Your task to perform on an android device: turn on priority inbox in the gmail app Image 0: 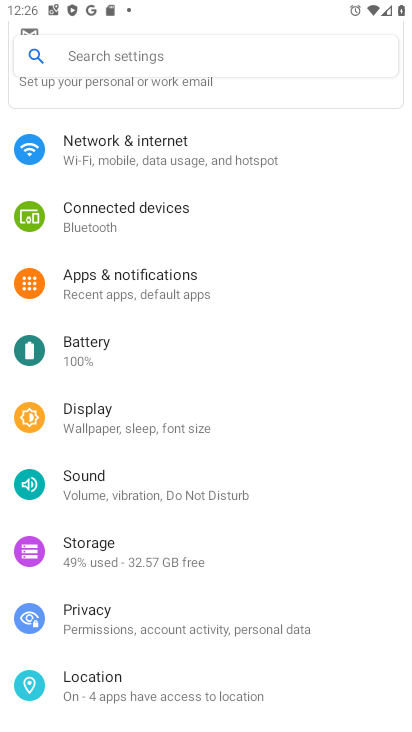
Step 0: press home button
Your task to perform on an android device: turn on priority inbox in the gmail app Image 1: 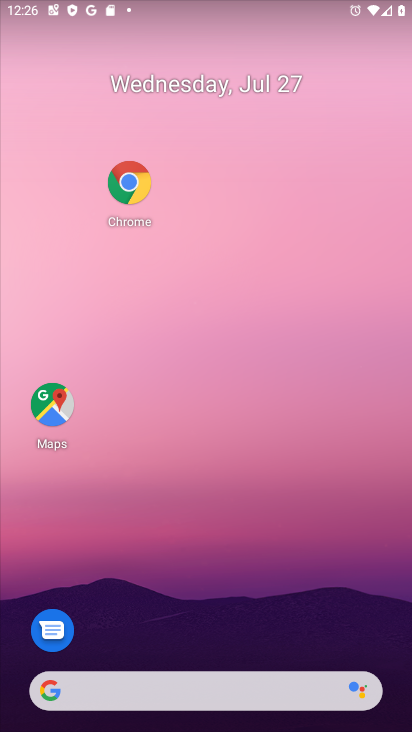
Step 1: drag from (101, 724) to (157, 197)
Your task to perform on an android device: turn on priority inbox in the gmail app Image 2: 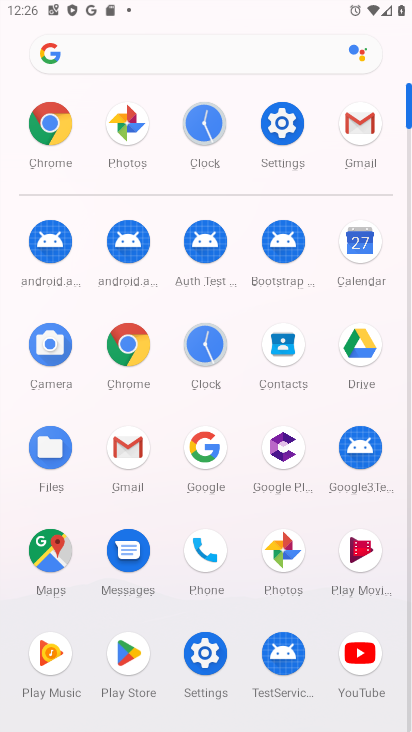
Step 2: click (355, 126)
Your task to perform on an android device: turn on priority inbox in the gmail app Image 3: 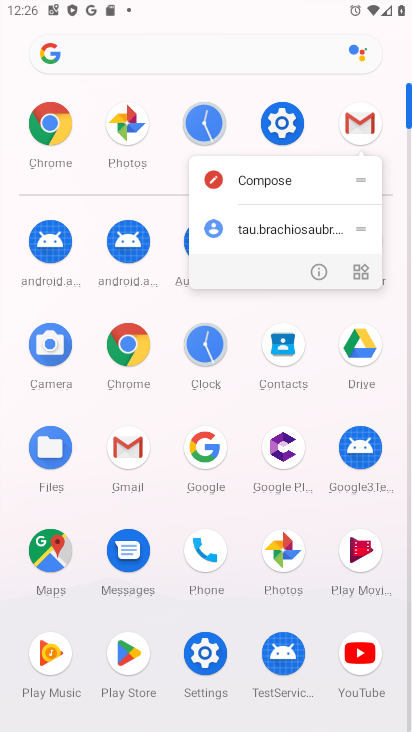
Step 3: click (355, 126)
Your task to perform on an android device: turn on priority inbox in the gmail app Image 4: 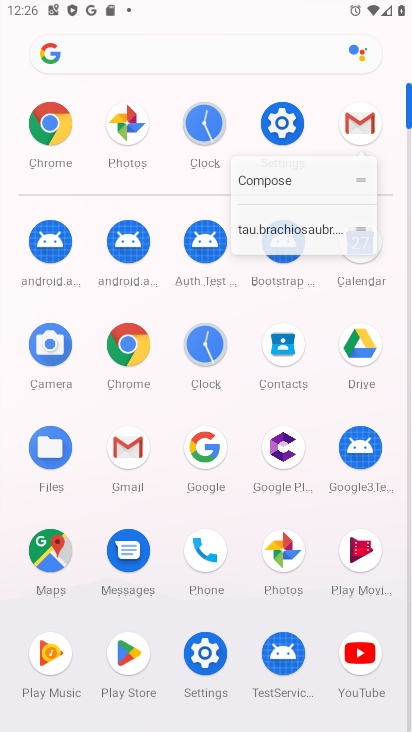
Step 4: click (355, 126)
Your task to perform on an android device: turn on priority inbox in the gmail app Image 5: 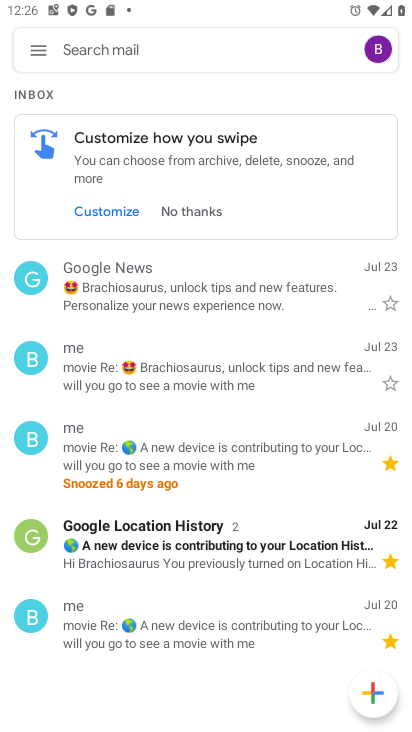
Step 5: click (42, 44)
Your task to perform on an android device: turn on priority inbox in the gmail app Image 6: 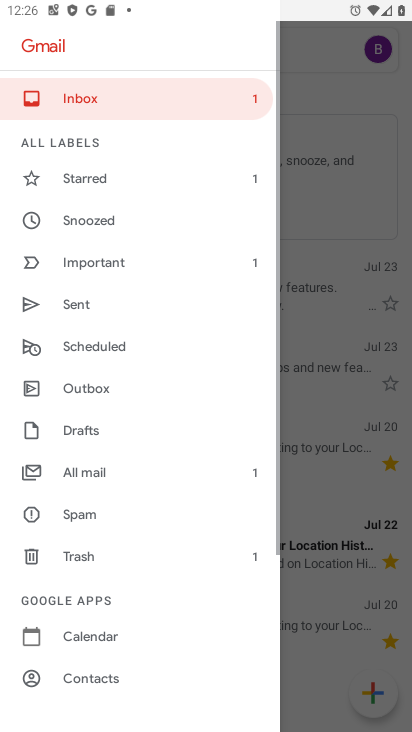
Step 6: drag from (151, 629) to (167, 60)
Your task to perform on an android device: turn on priority inbox in the gmail app Image 7: 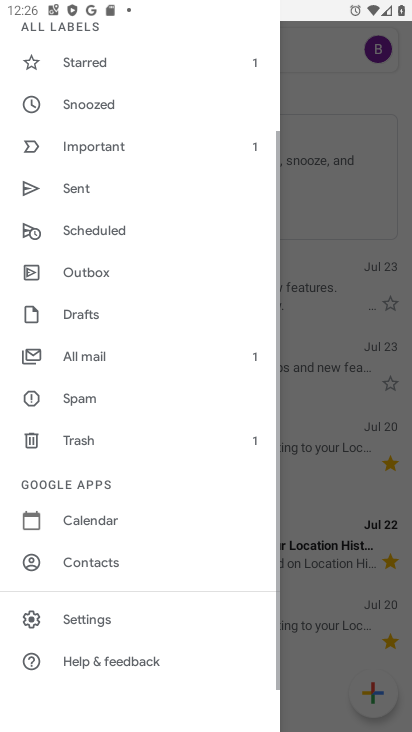
Step 7: click (111, 617)
Your task to perform on an android device: turn on priority inbox in the gmail app Image 8: 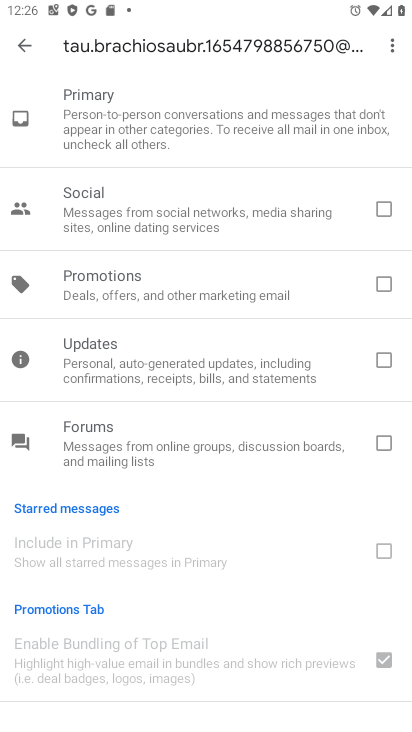
Step 8: click (30, 55)
Your task to perform on an android device: turn on priority inbox in the gmail app Image 9: 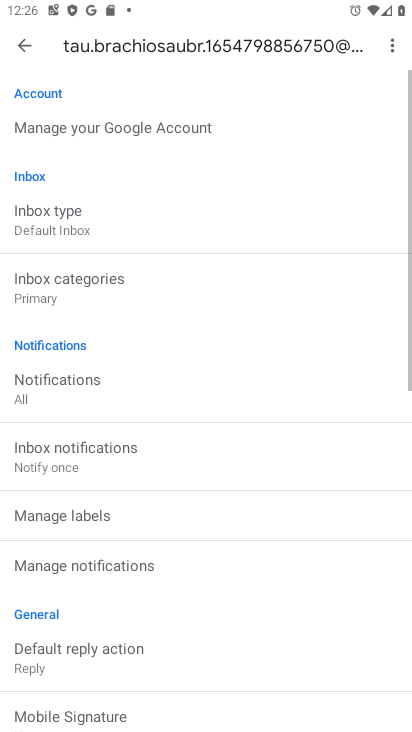
Step 9: click (66, 234)
Your task to perform on an android device: turn on priority inbox in the gmail app Image 10: 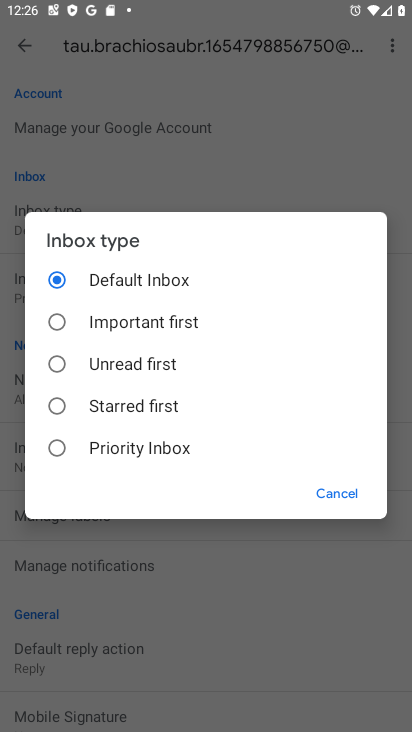
Step 10: click (121, 440)
Your task to perform on an android device: turn on priority inbox in the gmail app Image 11: 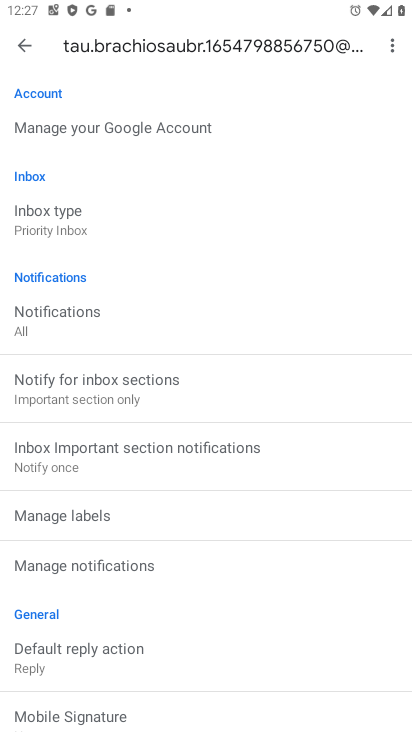
Step 11: task complete